Your task to perform on an android device: Do I have any events today? Image 0: 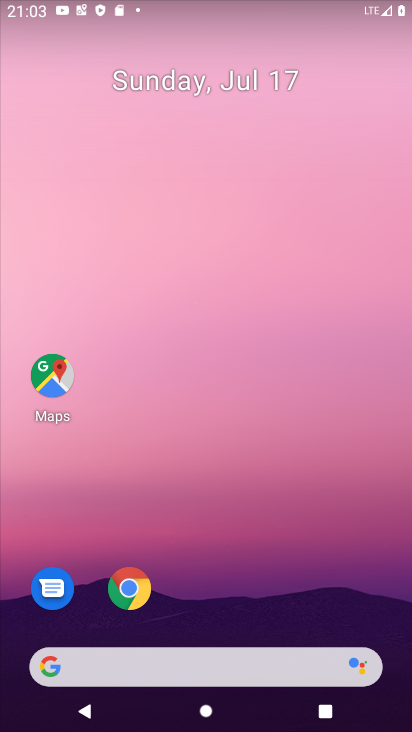
Step 0: press home button
Your task to perform on an android device: Do I have any events today? Image 1: 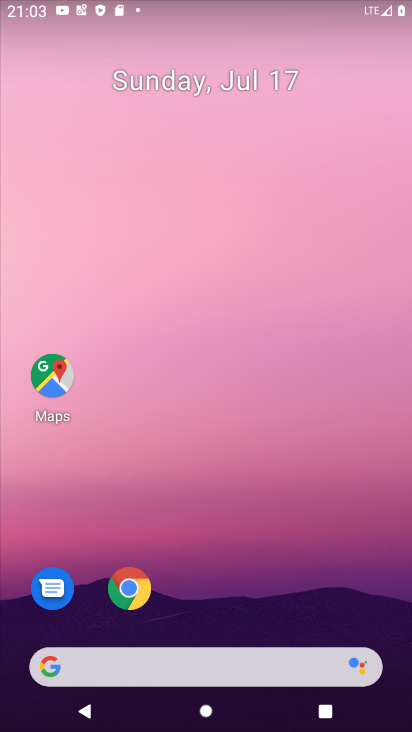
Step 1: drag from (261, 581) to (290, 94)
Your task to perform on an android device: Do I have any events today? Image 2: 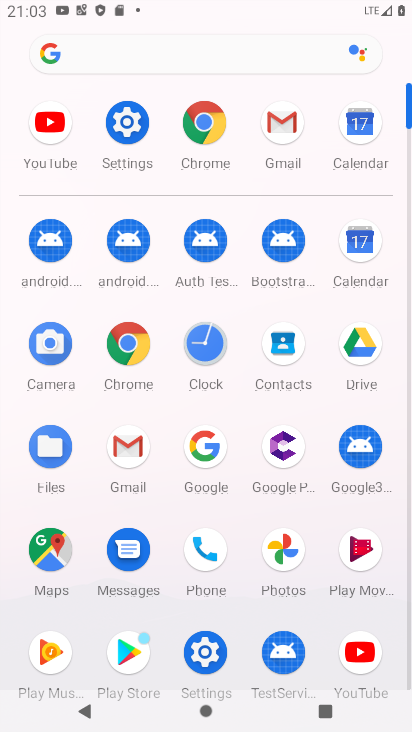
Step 2: click (366, 246)
Your task to perform on an android device: Do I have any events today? Image 3: 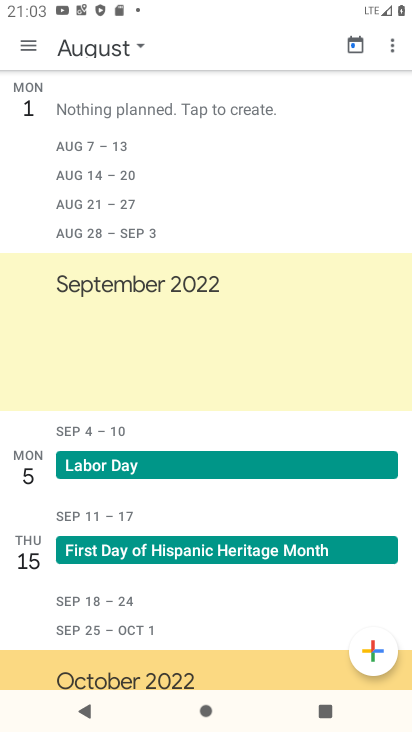
Step 3: click (114, 52)
Your task to perform on an android device: Do I have any events today? Image 4: 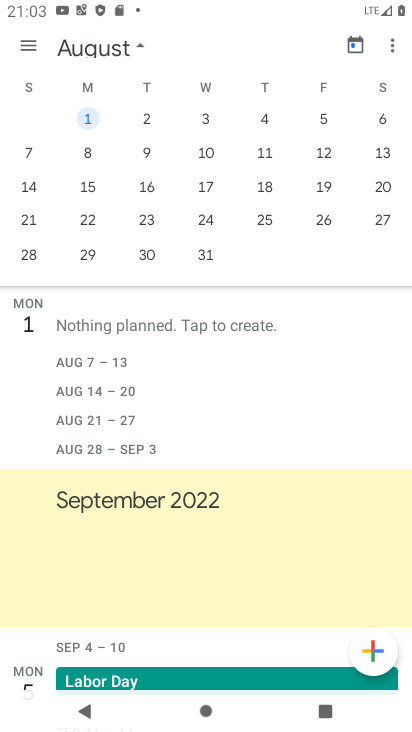
Step 4: drag from (66, 145) to (411, 136)
Your task to perform on an android device: Do I have any events today? Image 5: 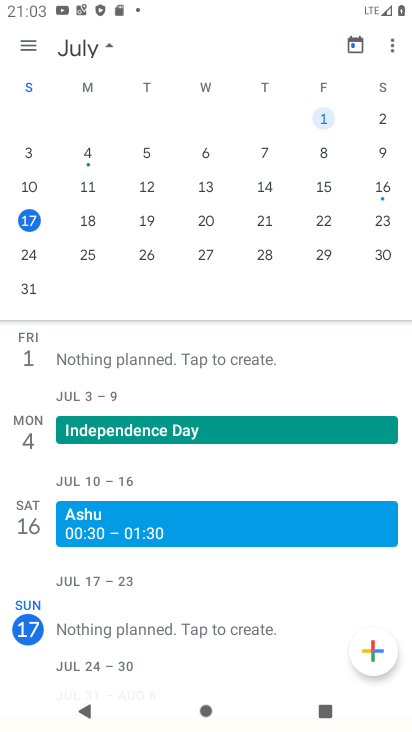
Step 5: click (33, 213)
Your task to perform on an android device: Do I have any events today? Image 6: 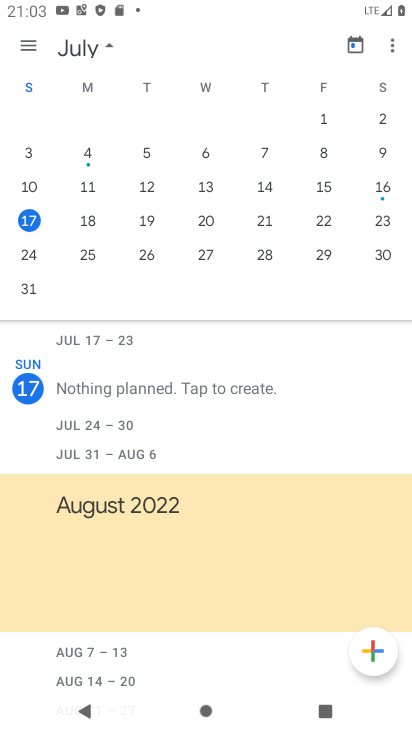
Step 6: task complete